Your task to perform on an android device: turn vacation reply on in the gmail app Image 0: 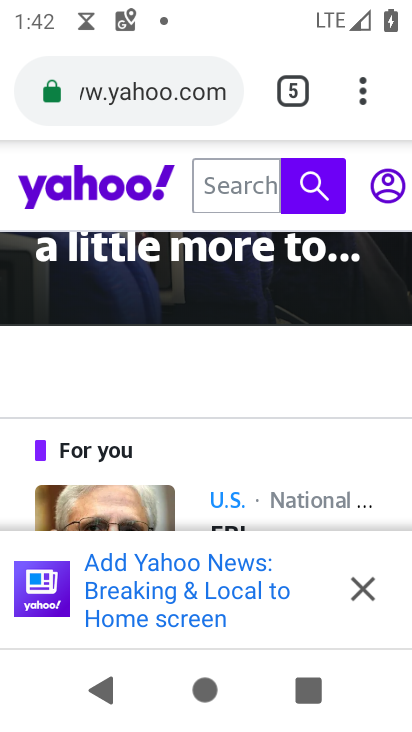
Step 0: press home button
Your task to perform on an android device: turn vacation reply on in the gmail app Image 1: 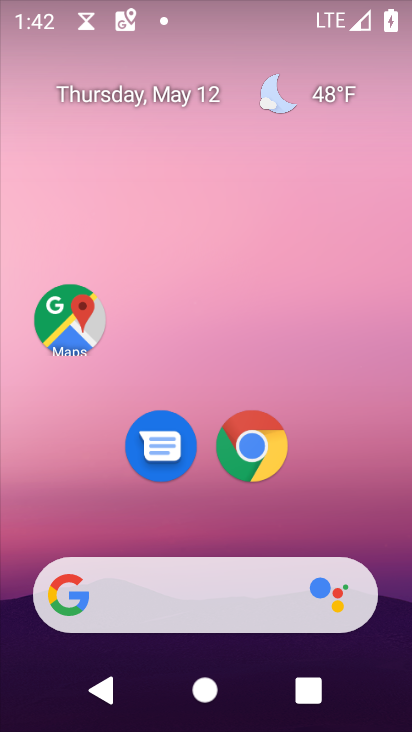
Step 1: drag from (267, 527) to (268, 108)
Your task to perform on an android device: turn vacation reply on in the gmail app Image 2: 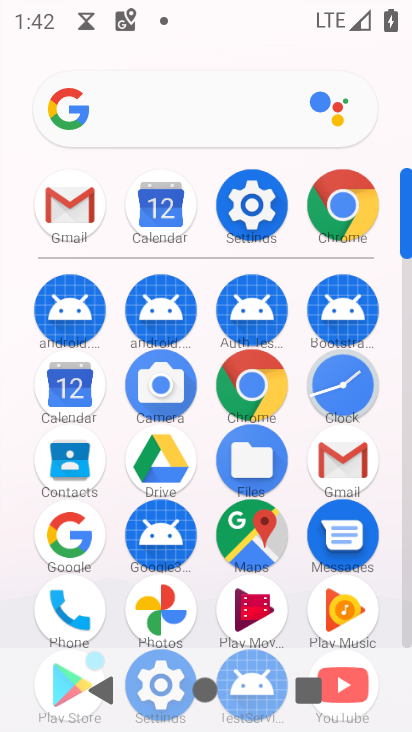
Step 2: drag from (289, 588) to (287, 228)
Your task to perform on an android device: turn vacation reply on in the gmail app Image 3: 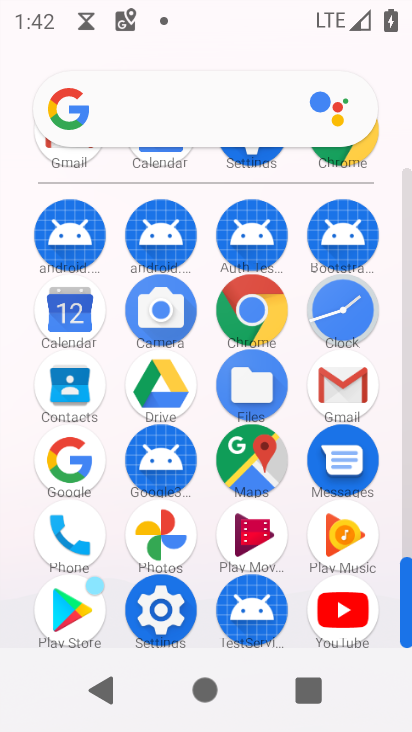
Step 3: click (351, 388)
Your task to perform on an android device: turn vacation reply on in the gmail app Image 4: 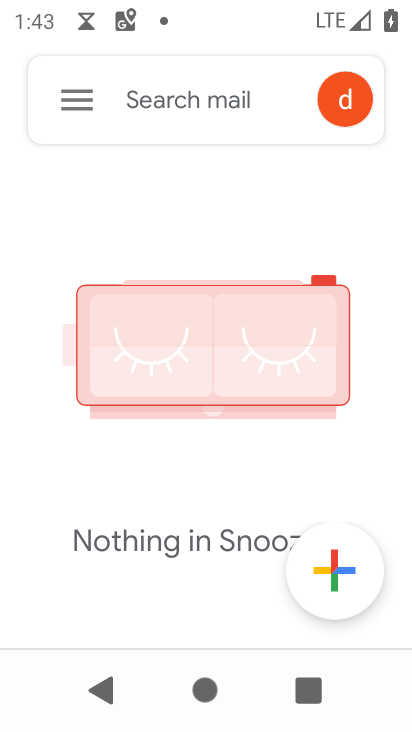
Step 4: click (72, 92)
Your task to perform on an android device: turn vacation reply on in the gmail app Image 5: 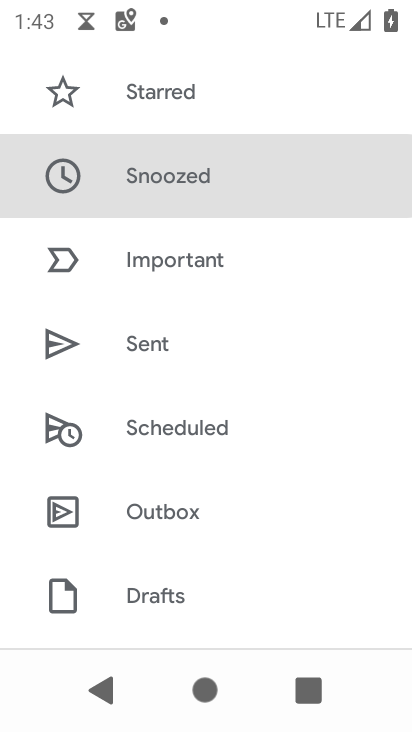
Step 5: drag from (274, 571) to (274, 86)
Your task to perform on an android device: turn vacation reply on in the gmail app Image 6: 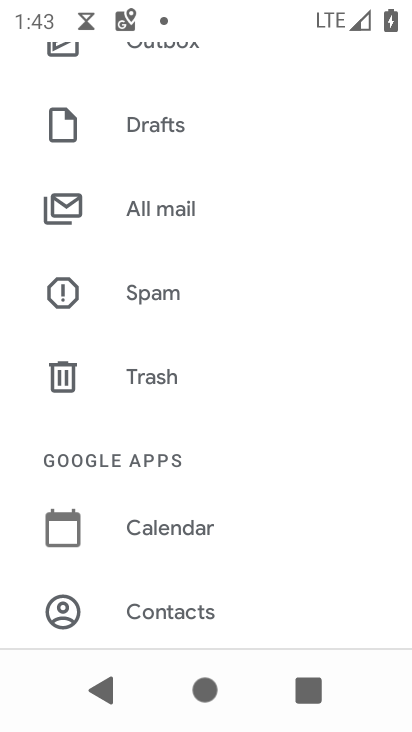
Step 6: drag from (218, 574) to (250, 204)
Your task to perform on an android device: turn vacation reply on in the gmail app Image 7: 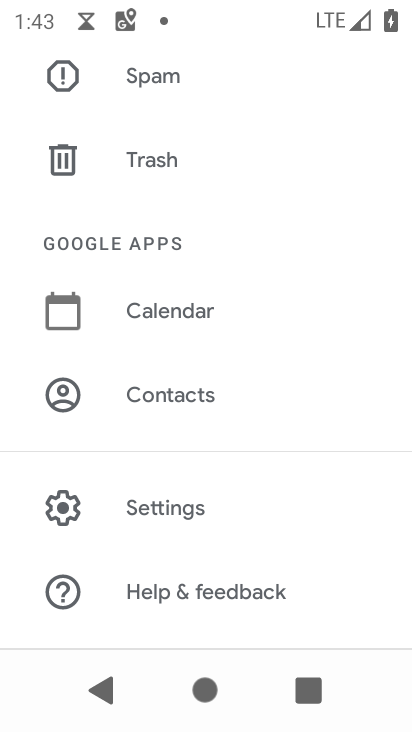
Step 7: click (172, 507)
Your task to perform on an android device: turn vacation reply on in the gmail app Image 8: 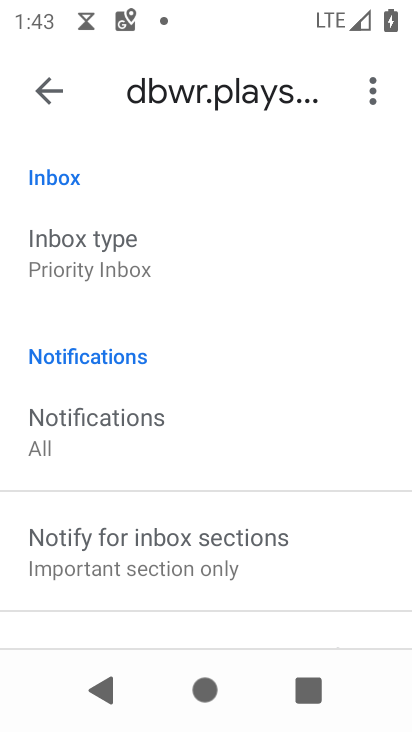
Step 8: drag from (287, 522) to (289, 221)
Your task to perform on an android device: turn vacation reply on in the gmail app Image 9: 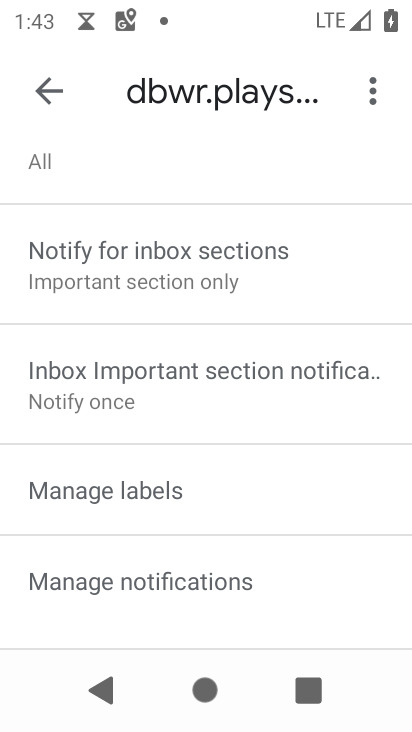
Step 9: drag from (281, 532) to (293, 216)
Your task to perform on an android device: turn vacation reply on in the gmail app Image 10: 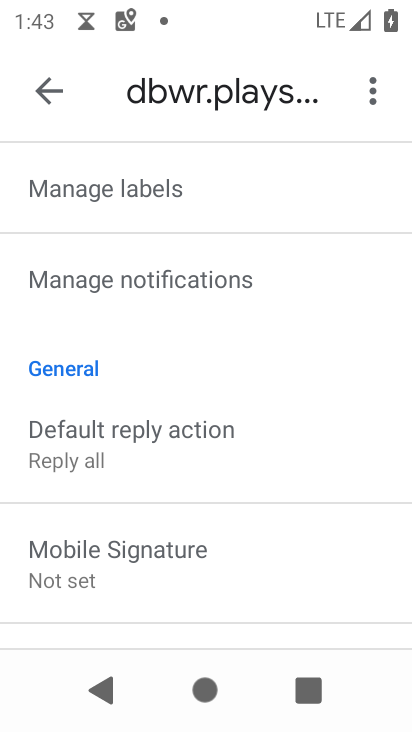
Step 10: drag from (302, 524) to (313, 283)
Your task to perform on an android device: turn vacation reply on in the gmail app Image 11: 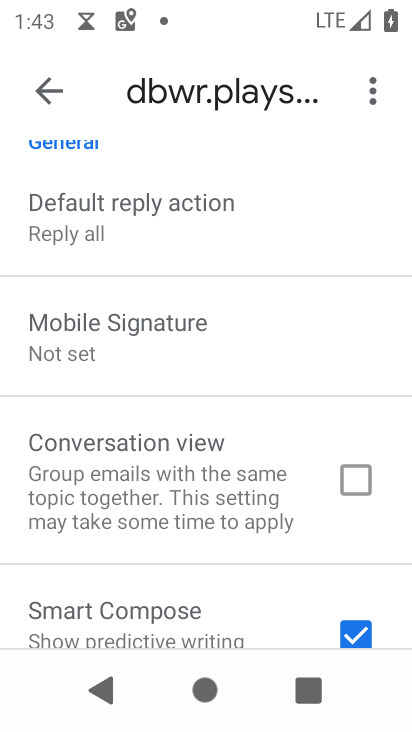
Step 11: drag from (249, 548) to (301, 170)
Your task to perform on an android device: turn vacation reply on in the gmail app Image 12: 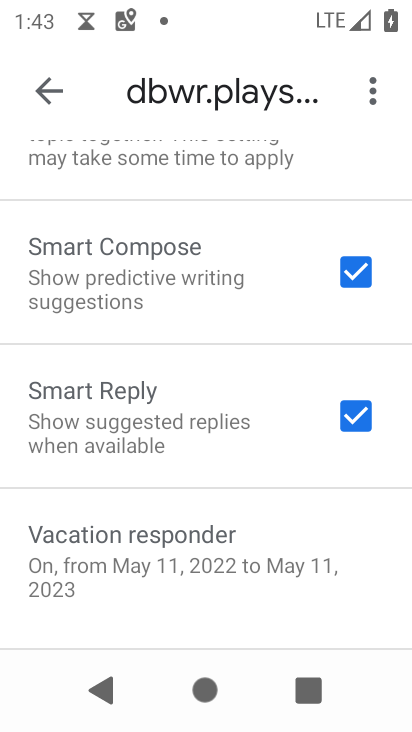
Step 12: click (199, 544)
Your task to perform on an android device: turn vacation reply on in the gmail app Image 13: 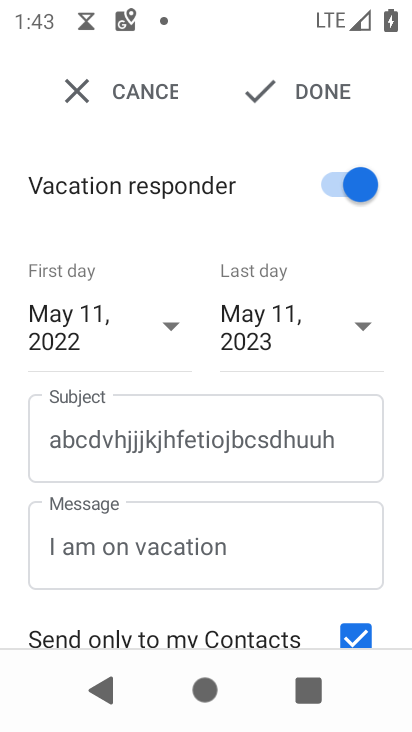
Step 13: click (311, 85)
Your task to perform on an android device: turn vacation reply on in the gmail app Image 14: 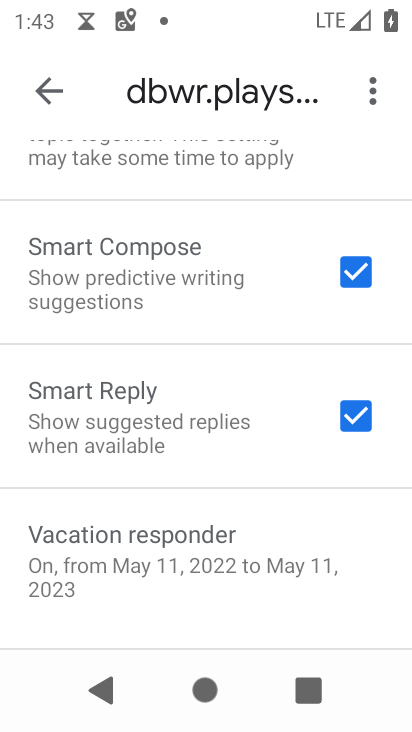
Step 14: task complete